Your task to perform on an android device: empty trash in the gmail app Image 0: 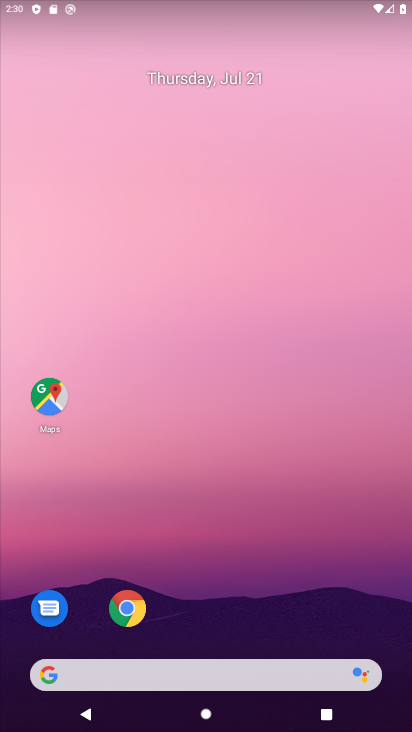
Step 0: drag from (229, 669) to (174, 212)
Your task to perform on an android device: empty trash in the gmail app Image 1: 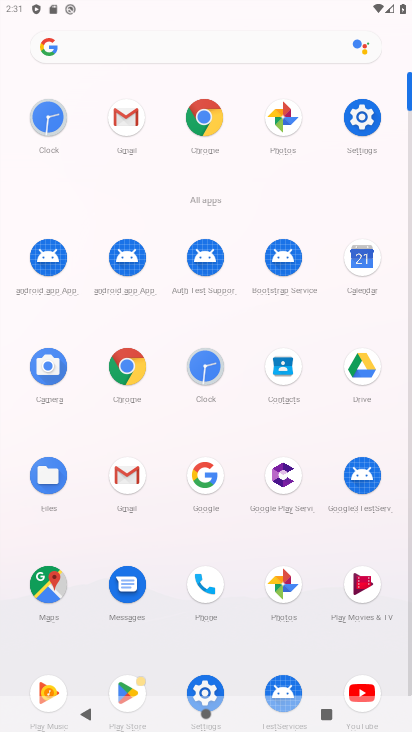
Step 1: click (123, 473)
Your task to perform on an android device: empty trash in the gmail app Image 2: 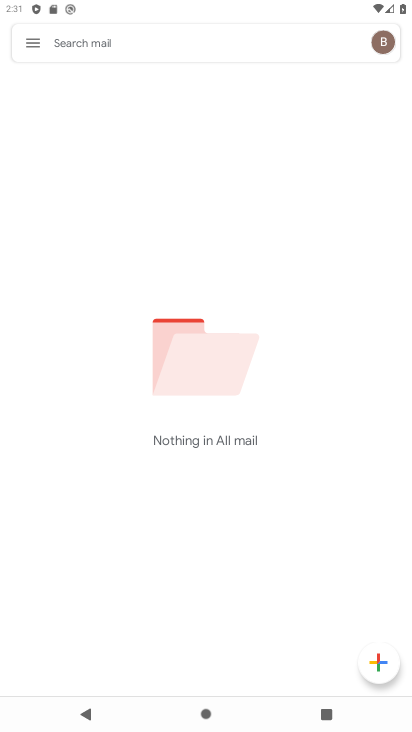
Step 2: click (32, 36)
Your task to perform on an android device: empty trash in the gmail app Image 3: 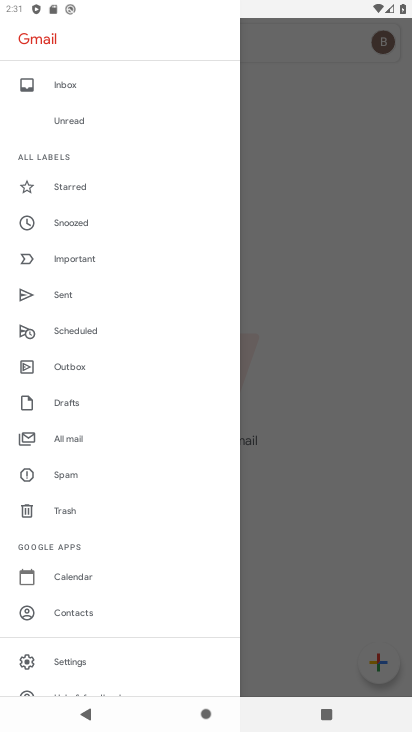
Step 3: click (75, 510)
Your task to perform on an android device: empty trash in the gmail app Image 4: 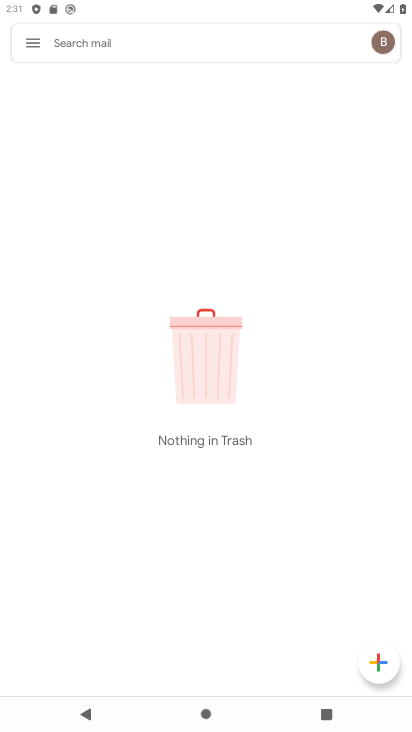
Step 4: task complete